Your task to perform on an android device: open app "Google Translate" Image 0: 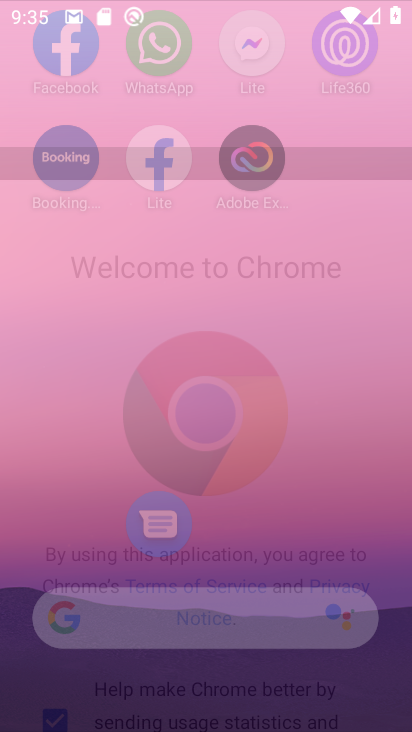
Step 0: click (218, 4)
Your task to perform on an android device: open app "Google Translate" Image 1: 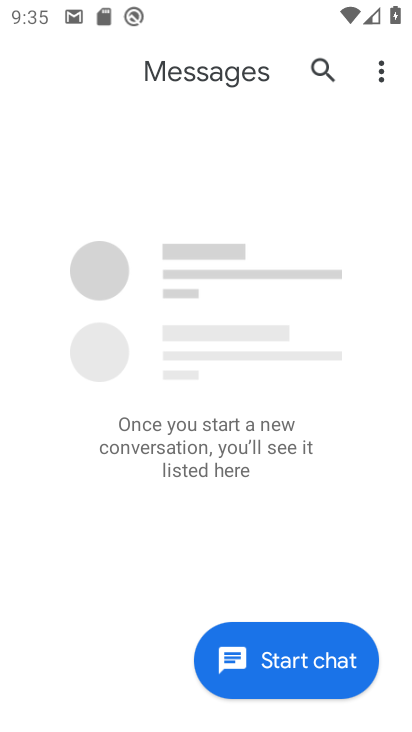
Step 1: press home button
Your task to perform on an android device: open app "Google Translate" Image 2: 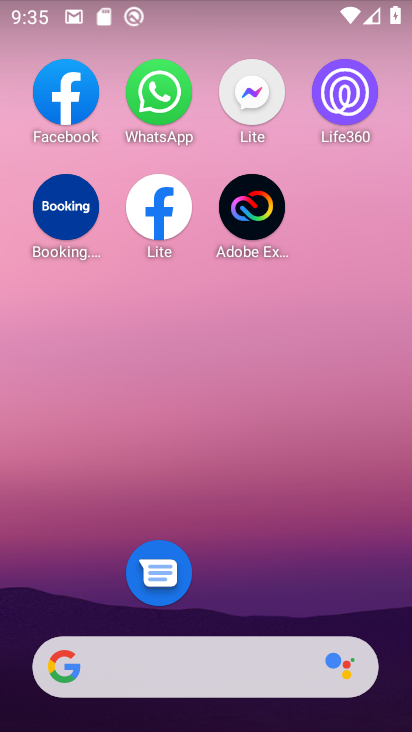
Step 2: drag from (231, 598) to (223, 72)
Your task to perform on an android device: open app "Google Translate" Image 3: 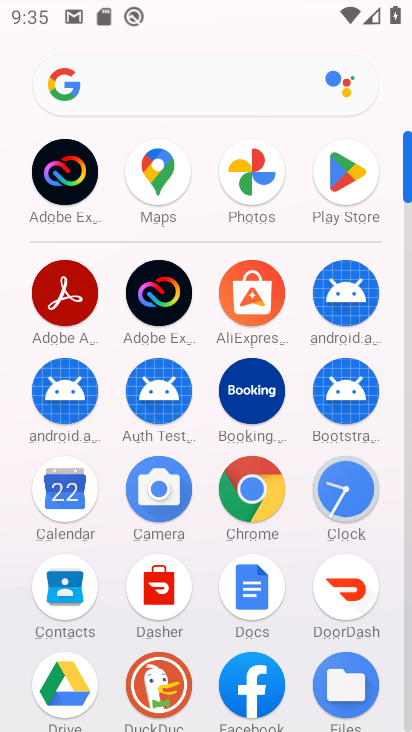
Step 3: click (328, 184)
Your task to perform on an android device: open app "Google Translate" Image 4: 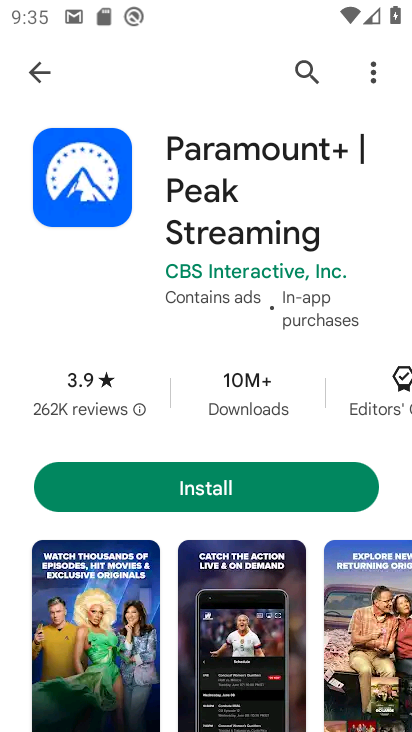
Step 4: click (40, 67)
Your task to perform on an android device: open app "Google Translate" Image 5: 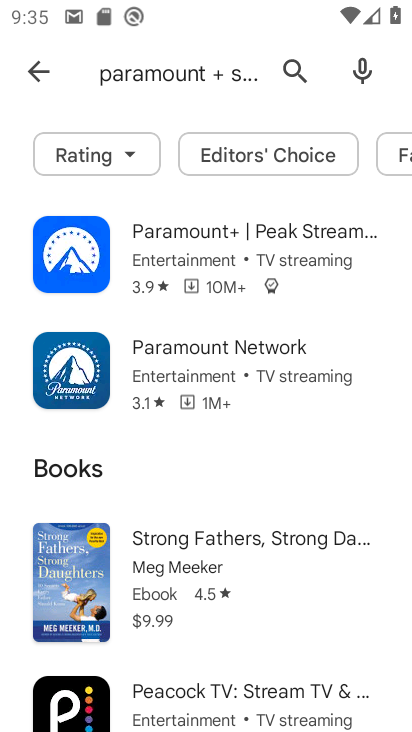
Step 5: click (168, 79)
Your task to perform on an android device: open app "Google Translate" Image 6: 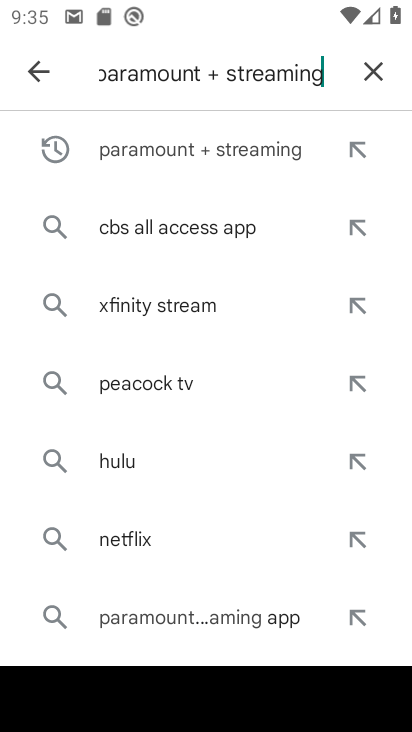
Step 6: click (370, 68)
Your task to perform on an android device: open app "Google Translate" Image 7: 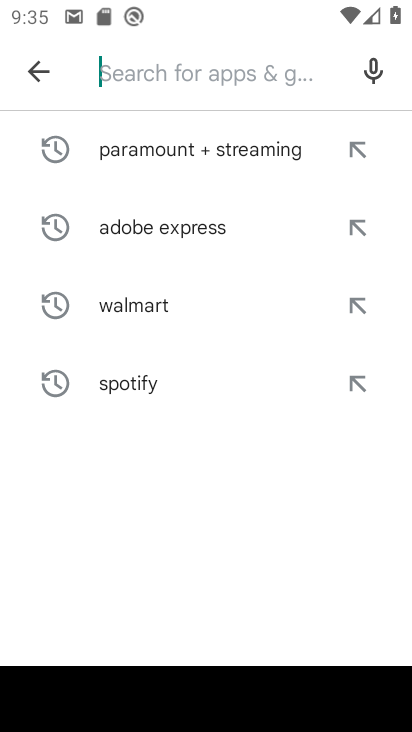
Step 7: type "google translate"
Your task to perform on an android device: open app "Google Translate" Image 8: 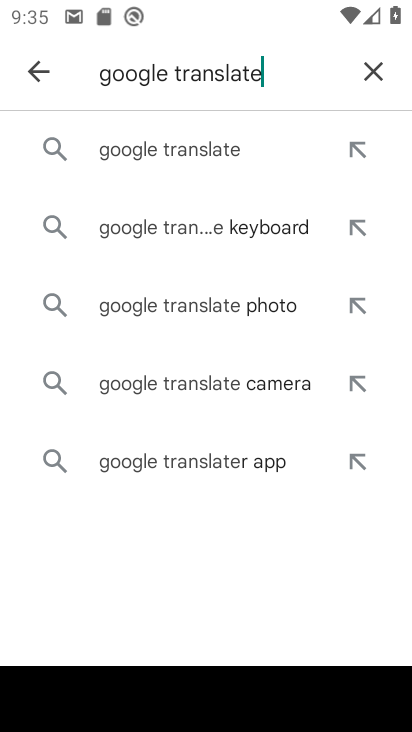
Step 8: click (188, 158)
Your task to perform on an android device: open app "Google Translate" Image 9: 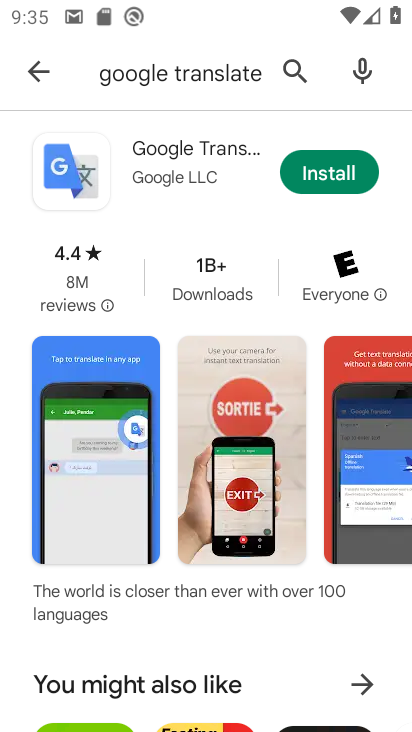
Step 9: task complete